Your task to perform on an android device: Play the last video I watched on Youtube Image 0: 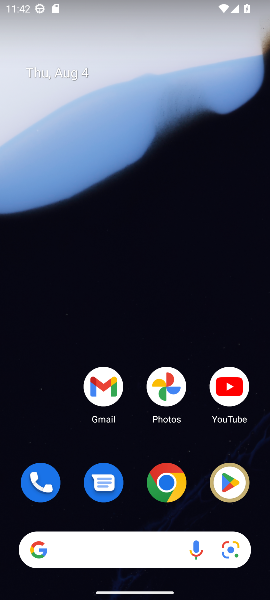
Step 0: click (222, 374)
Your task to perform on an android device: Play the last video I watched on Youtube Image 1: 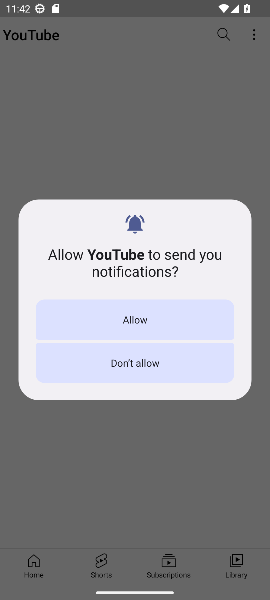
Step 1: click (142, 324)
Your task to perform on an android device: Play the last video I watched on Youtube Image 2: 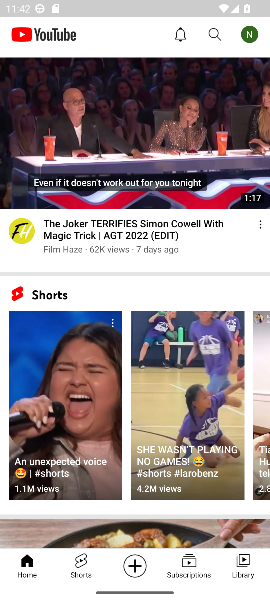
Step 2: click (243, 571)
Your task to perform on an android device: Play the last video I watched on Youtube Image 3: 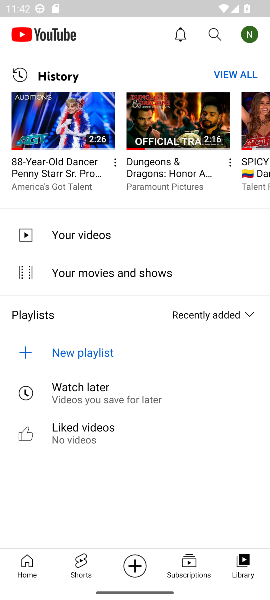
Step 3: click (50, 132)
Your task to perform on an android device: Play the last video I watched on Youtube Image 4: 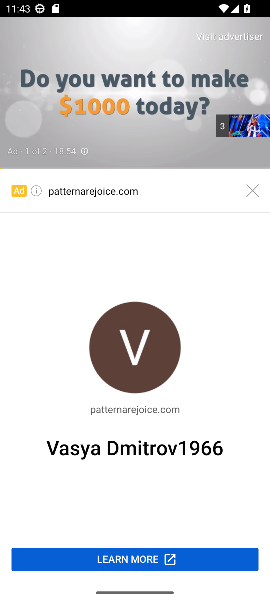
Step 4: click (111, 75)
Your task to perform on an android device: Play the last video I watched on Youtube Image 5: 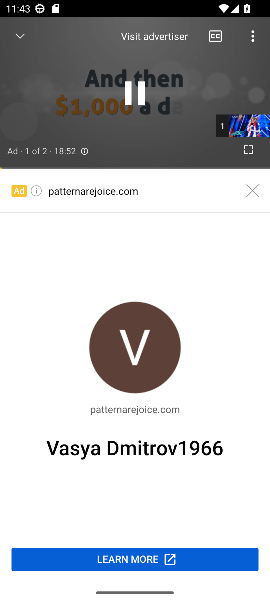
Step 5: click (128, 89)
Your task to perform on an android device: Play the last video I watched on Youtube Image 6: 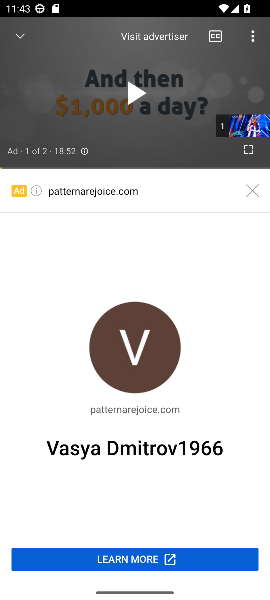
Step 6: task complete